Your task to perform on an android device: Open wifi settings Image 0: 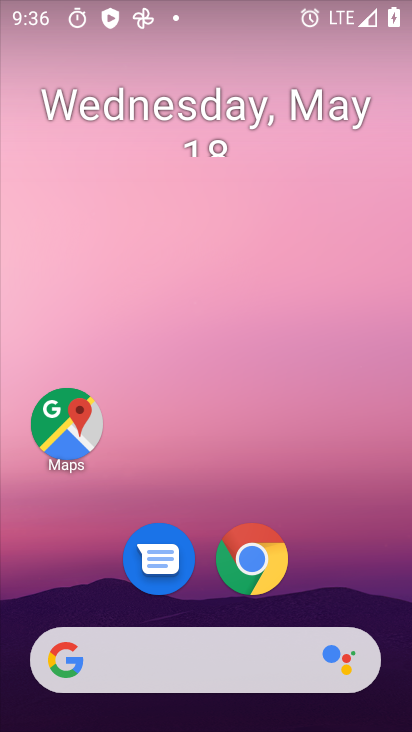
Step 0: drag from (333, 551) to (262, 41)
Your task to perform on an android device: Open wifi settings Image 1: 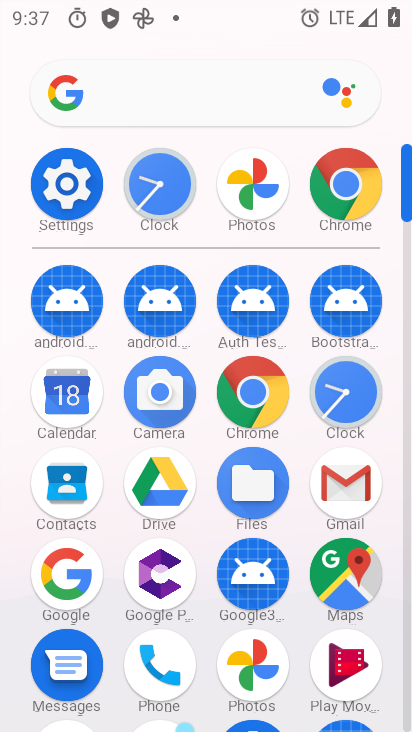
Step 1: click (66, 177)
Your task to perform on an android device: Open wifi settings Image 2: 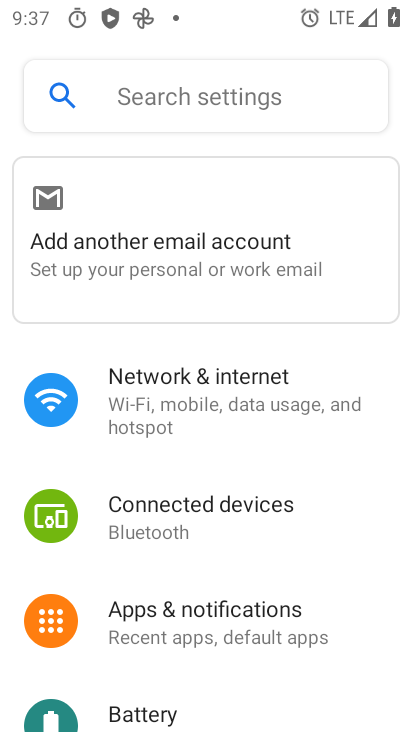
Step 2: drag from (279, 581) to (353, 228)
Your task to perform on an android device: Open wifi settings Image 3: 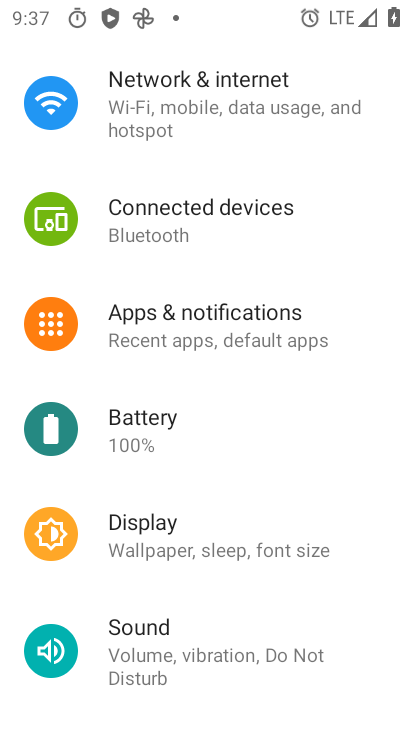
Step 3: click (273, 107)
Your task to perform on an android device: Open wifi settings Image 4: 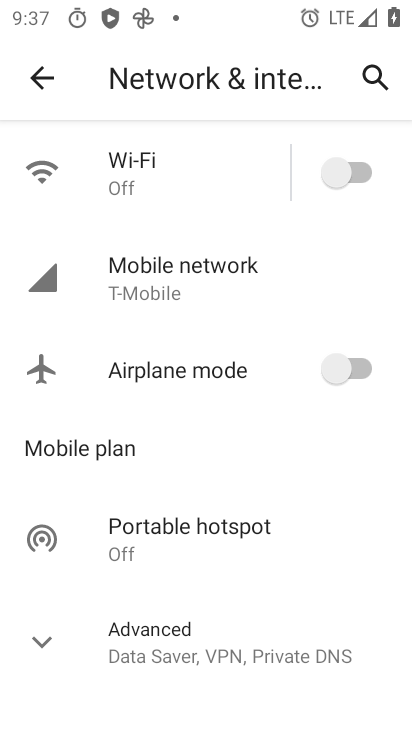
Step 4: click (64, 632)
Your task to perform on an android device: Open wifi settings Image 5: 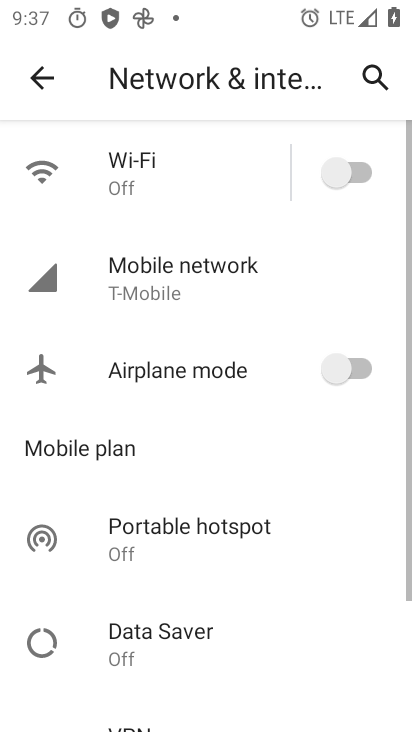
Step 5: task complete